Your task to perform on an android device: Open Google Maps and go to "Timeline" Image 0: 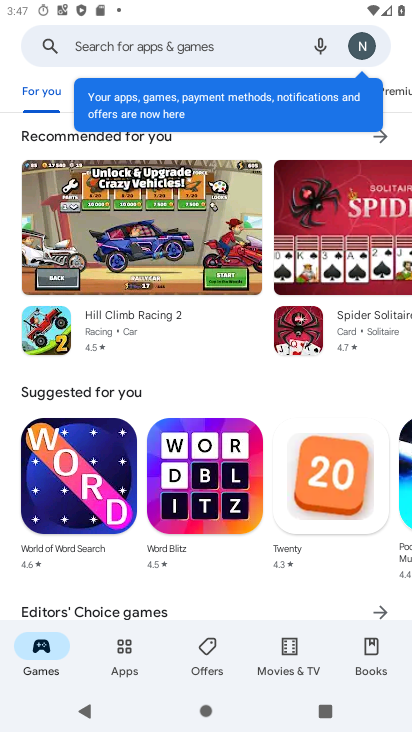
Step 0: press home button
Your task to perform on an android device: Open Google Maps and go to "Timeline" Image 1: 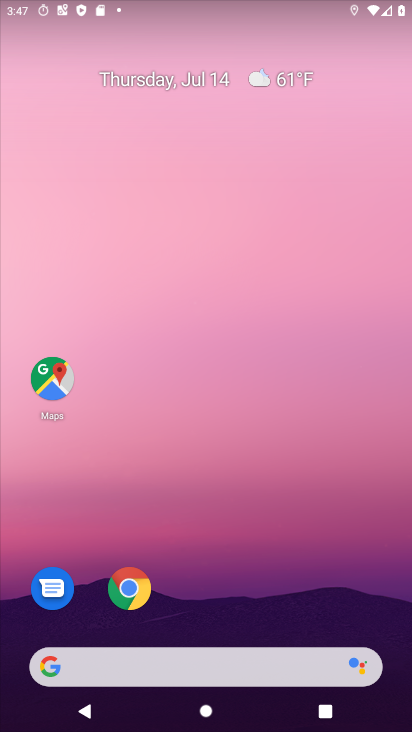
Step 1: click (51, 377)
Your task to perform on an android device: Open Google Maps and go to "Timeline" Image 2: 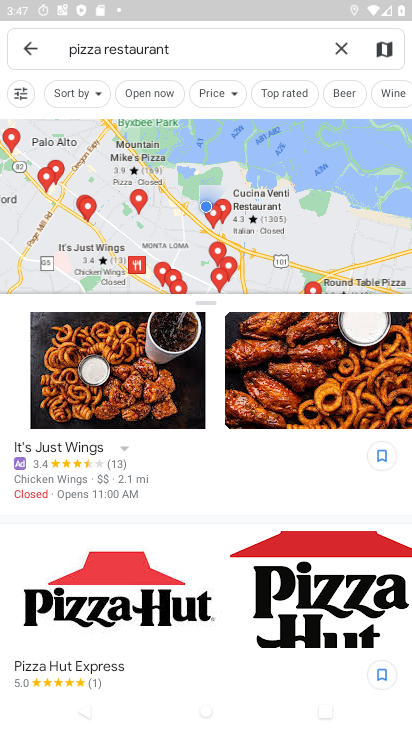
Step 2: press back button
Your task to perform on an android device: Open Google Maps and go to "Timeline" Image 3: 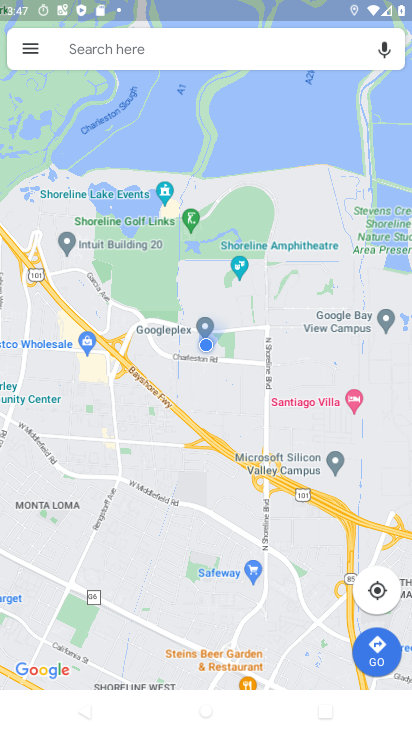
Step 3: click (31, 54)
Your task to perform on an android device: Open Google Maps and go to "Timeline" Image 4: 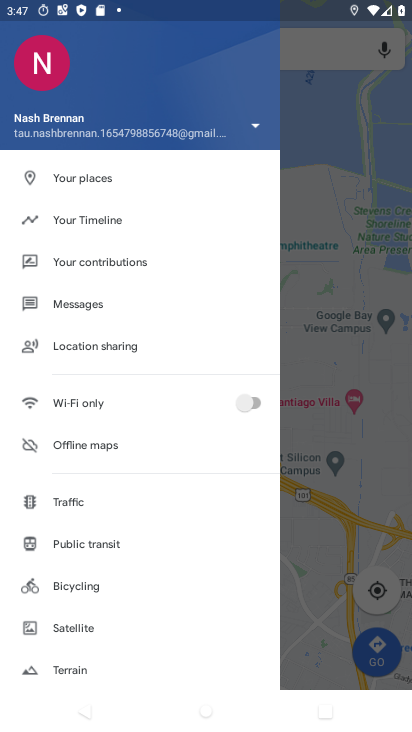
Step 4: drag from (81, 602) to (110, 466)
Your task to perform on an android device: Open Google Maps and go to "Timeline" Image 5: 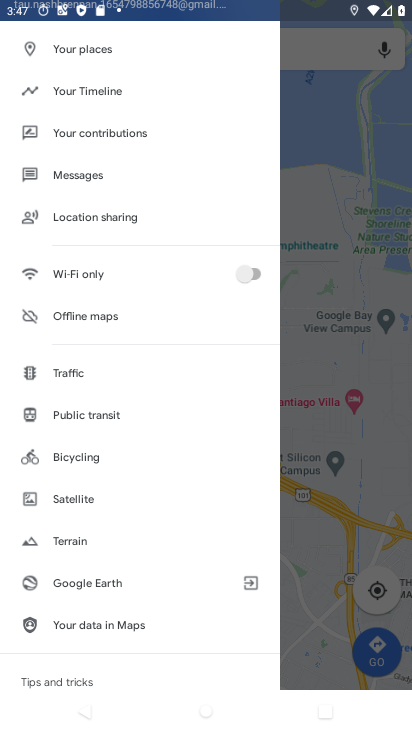
Step 5: drag from (89, 559) to (128, 479)
Your task to perform on an android device: Open Google Maps and go to "Timeline" Image 6: 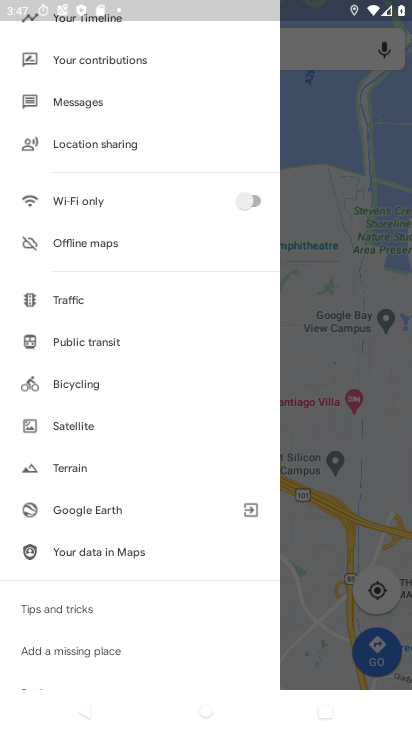
Step 6: click (131, 81)
Your task to perform on an android device: Open Google Maps and go to "Timeline" Image 7: 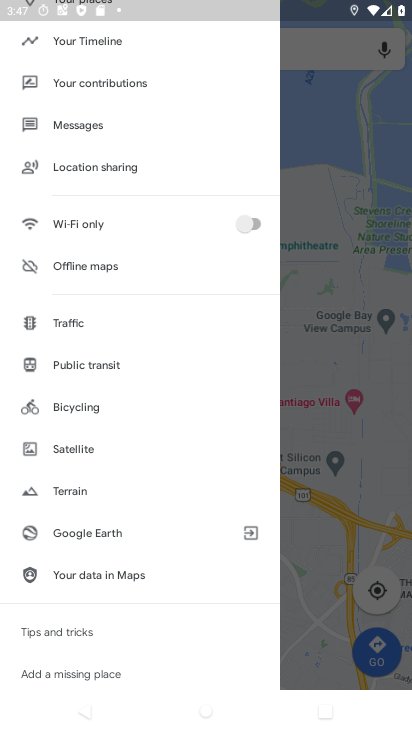
Step 7: click (100, 38)
Your task to perform on an android device: Open Google Maps and go to "Timeline" Image 8: 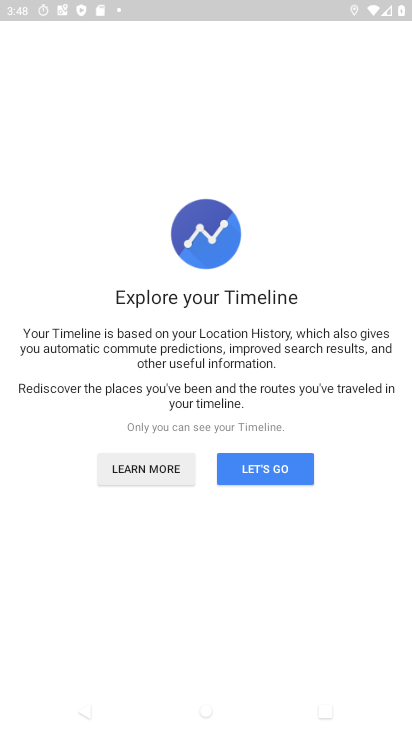
Step 8: click (263, 475)
Your task to perform on an android device: Open Google Maps and go to "Timeline" Image 9: 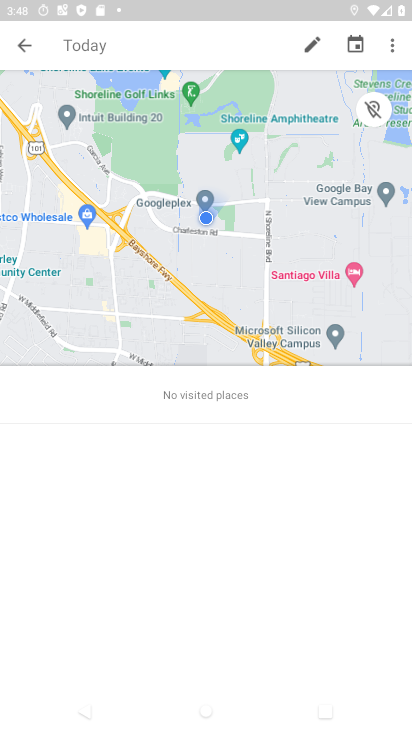
Step 9: task complete